Your task to perform on an android device: turn on javascript in the chrome app Image 0: 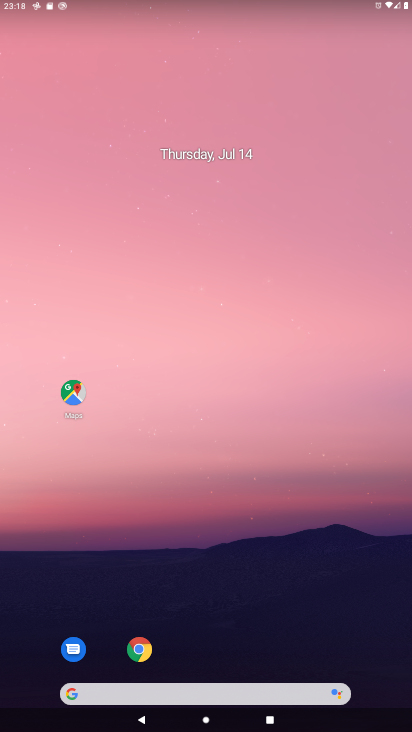
Step 0: click (152, 646)
Your task to perform on an android device: turn on javascript in the chrome app Image 1: 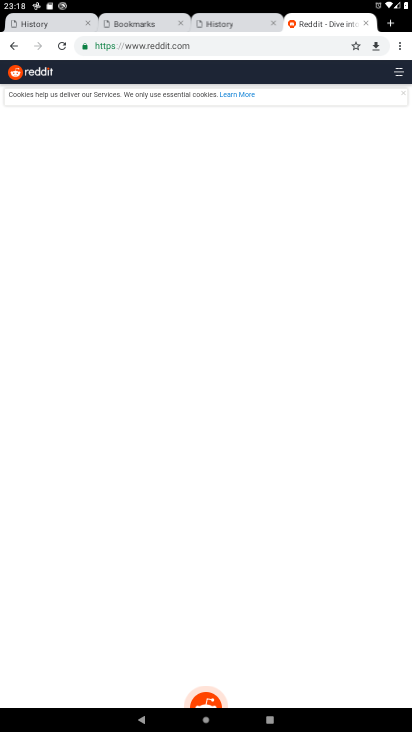
Step 1: click (398, 46)
Your task to perform on an android device: turn on javascript in the chrome app Image 2: 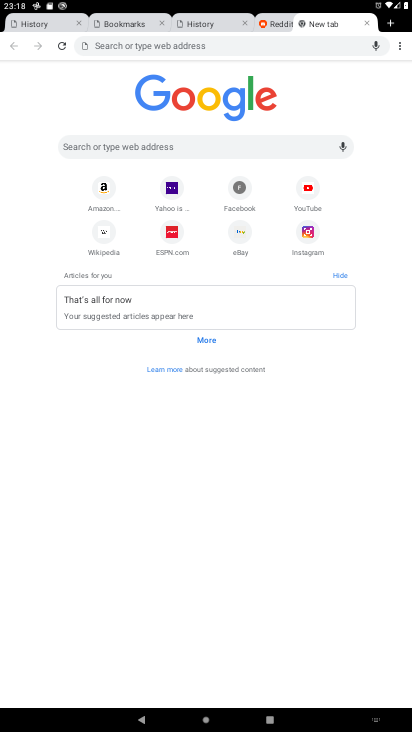
Step 2: click (398, 46)
Your task to perform on an android device: turn on javascript in the chrome app Image 3: 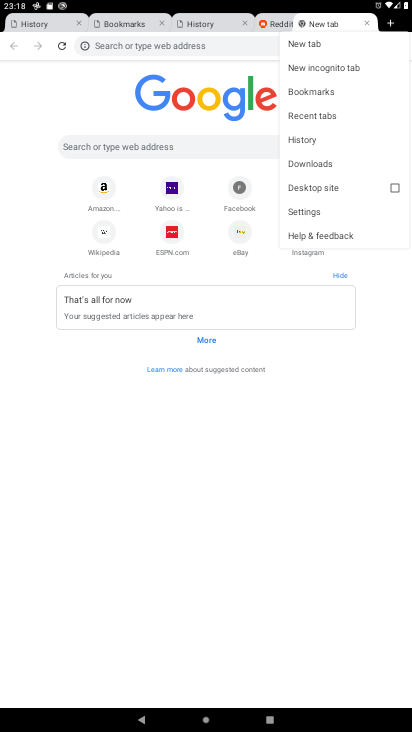
Step 3: click (315, 216)
Your task to perform on an android device: turn on javascript in the chrome app Image 4: 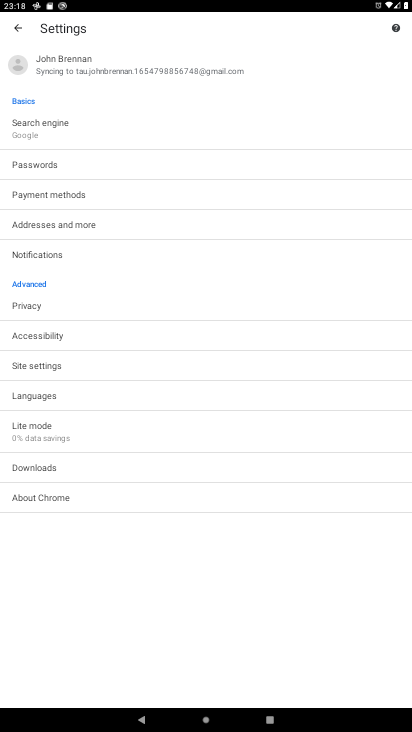
Step 4: click (42, 360)
Your task to perform on an android device: turn on javascript in the chrome app Image 5: 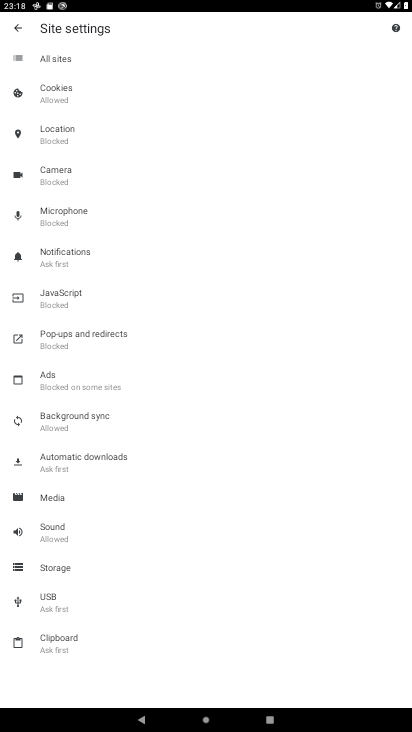
Step 5: click (57, 304)
Your task to perform on an android device: turn on javascript in the chrome app Image 6: 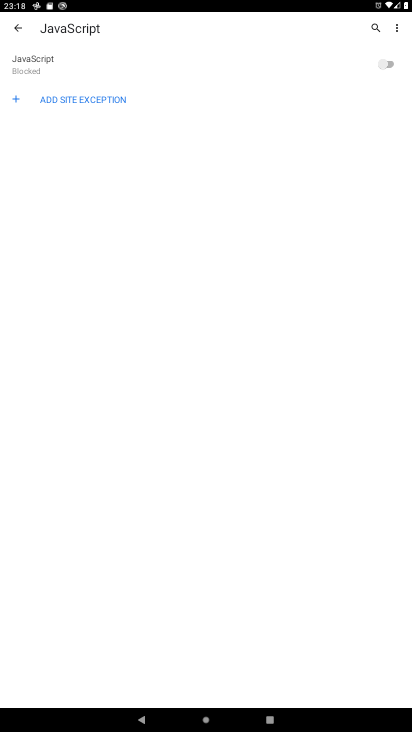
Step 6: click (389, 61)
Your task to perform on an android device: turn on javascript in the chrome app Image 7: 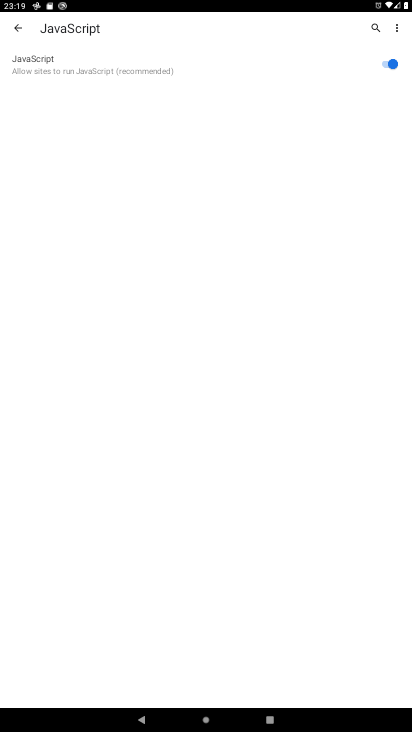
Step 7: task complete